Your task to perform on an android device: turn off sleep mode Image 0: 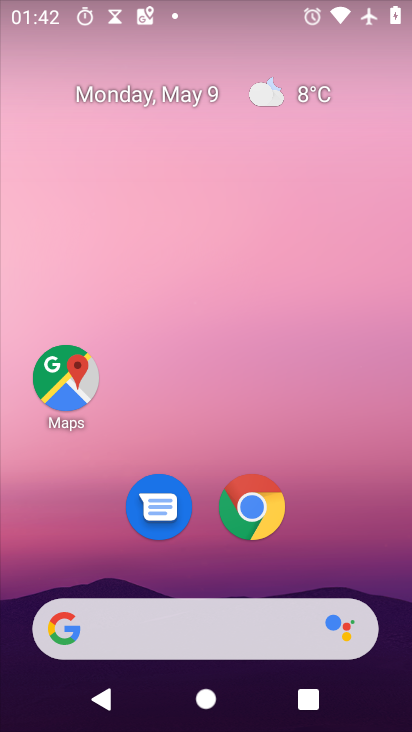
Step 0: drag from (237, 726) to (236, 121)
Your task to perform on an android device: turn off sleep mode Image 1: 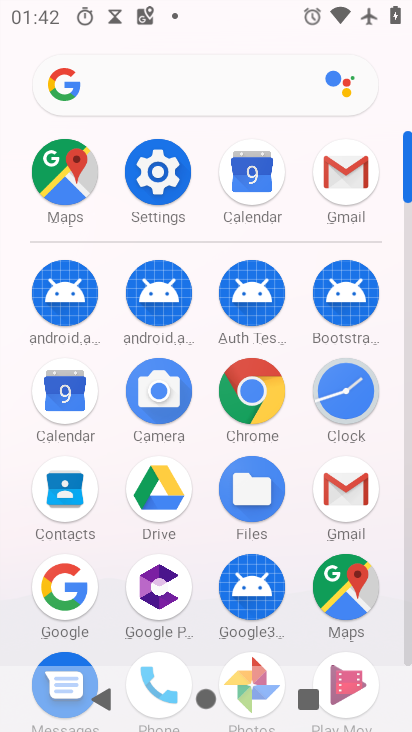
Step 1: click (147, 170)
Your task to perform on an android device: turn off sleep mode Image 2: 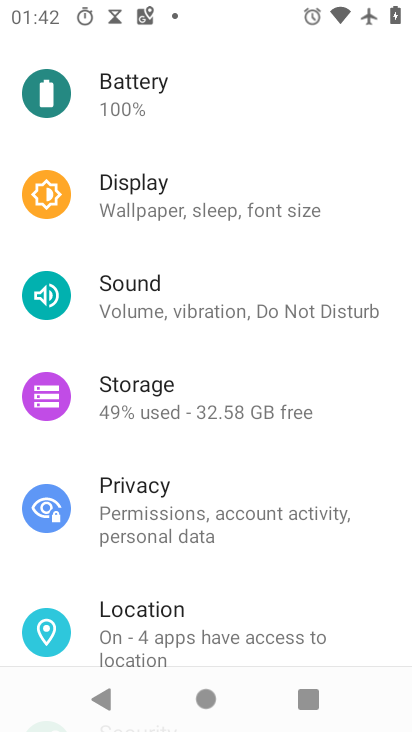
Step 2: click (204, 215)
Your task to perform on an android device: turn off sleep mode Image 3: 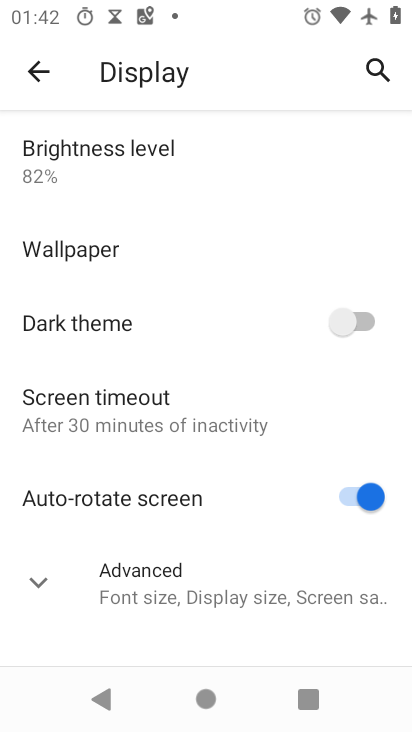
Step 3: click (35, 66)
Your task to perform on an android device: turn off sleep mode Image 4: 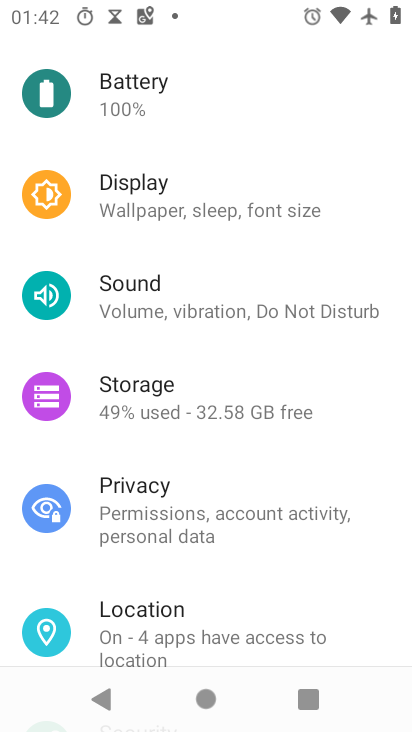
Step 4: task complete